Your task to perform on an android device: check android version Image 0: 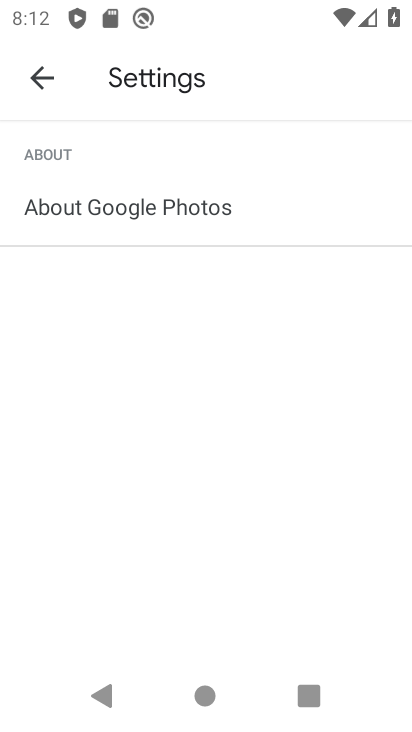
Step 0: press home button
Your task to perform on an android device: check android version Image 1: 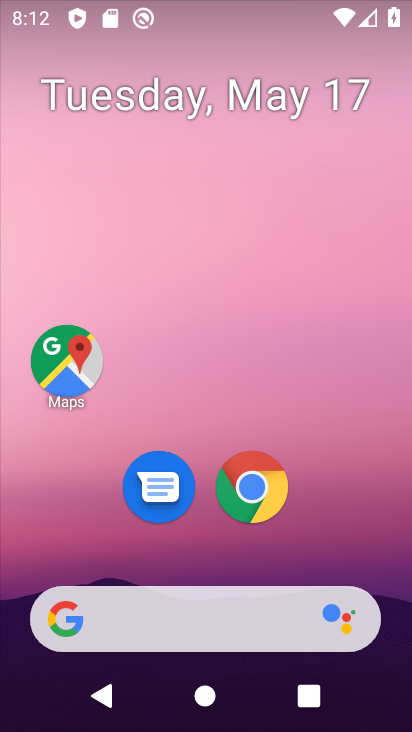
Step 1: drag from (287, 579) to (299, 5)
Your task to perform on an android device: check android version Image 2: 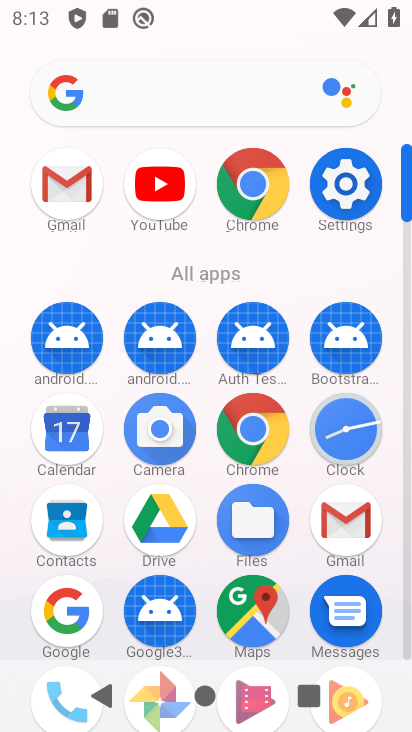
Step 2: click (331, 182)
Your task to perform on an android device: check android version Image 3: 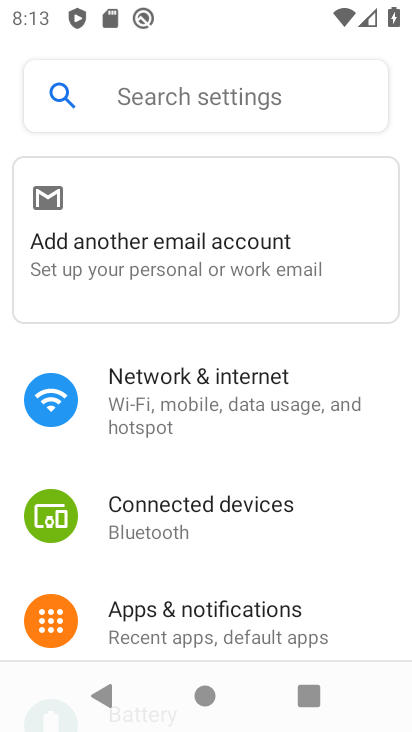
Step 3: click (177, 101)
Your task to perform on an android device: check android version Image 4: 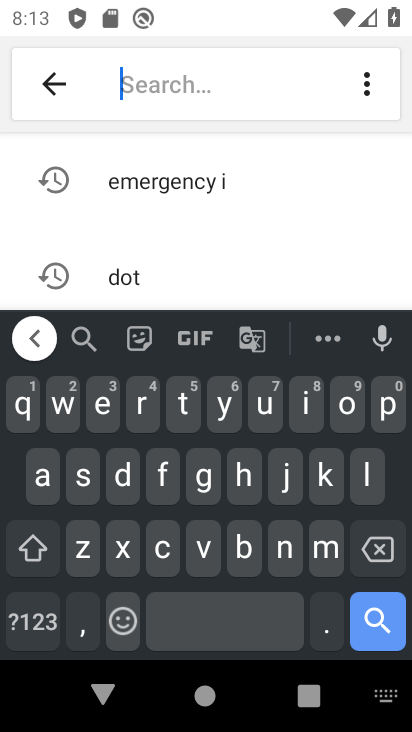
Step 4: click (33, 485)
Your task to perform on an android device: check android version Image 5: 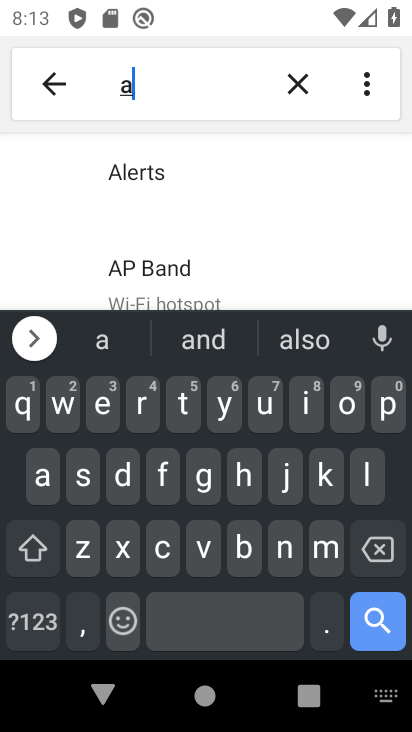
Step 5: click (282, 553)
Your task to perform on an android device: check android version Image 6: 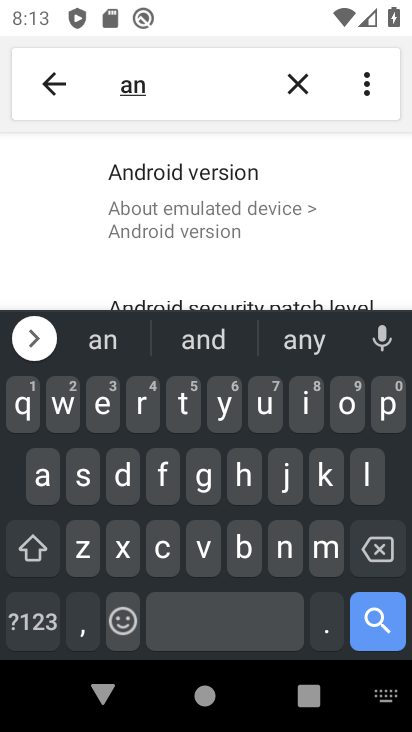
Step 6: click (224, 174)
Your task to perform on an android device: check android version Image 7: 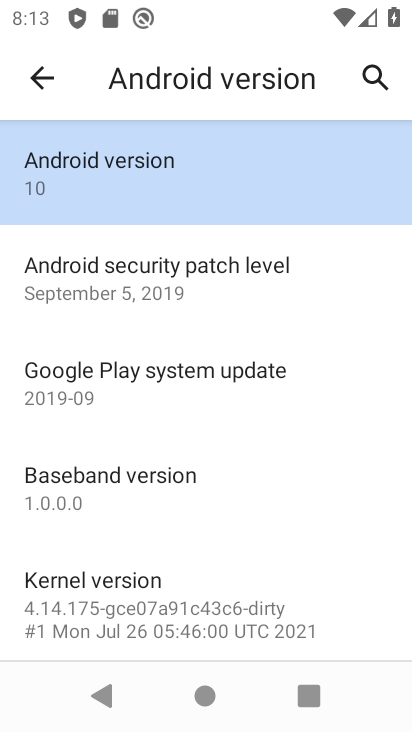
Step 7: click (224, 171)
Your task to perform on an android device: check android version Image 8: 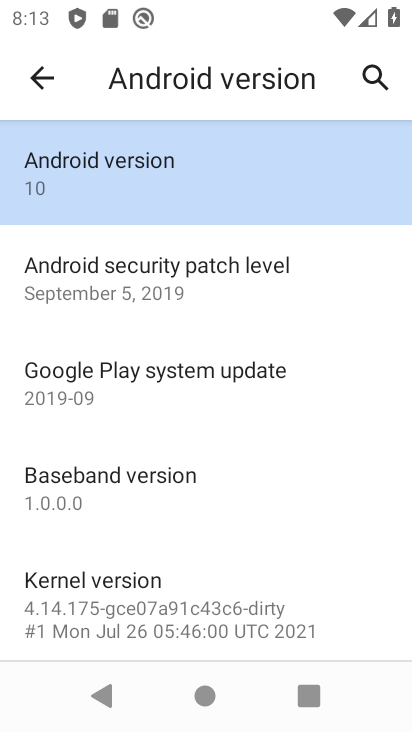
Step 8: task complete